Your task to perform on an android device: Search for "razer blackwidow" on amazon.com, select the first entry, add it to the cart, then select checkout. Image 0: 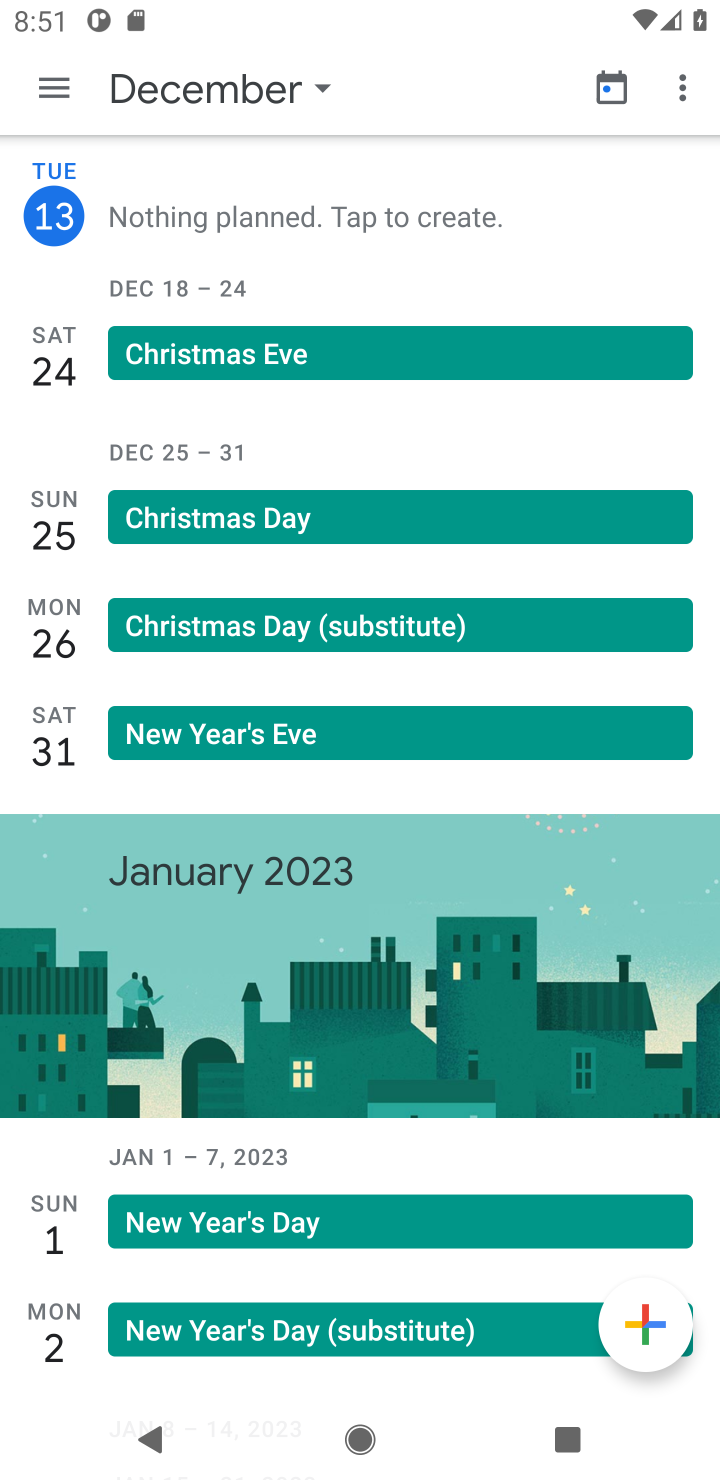
Step 0: press home button
Your task to perform on an android device: Search for "razer blackwidow" on amazon.com, select the first entry, add it to the cart, then select checkout. Image 1: 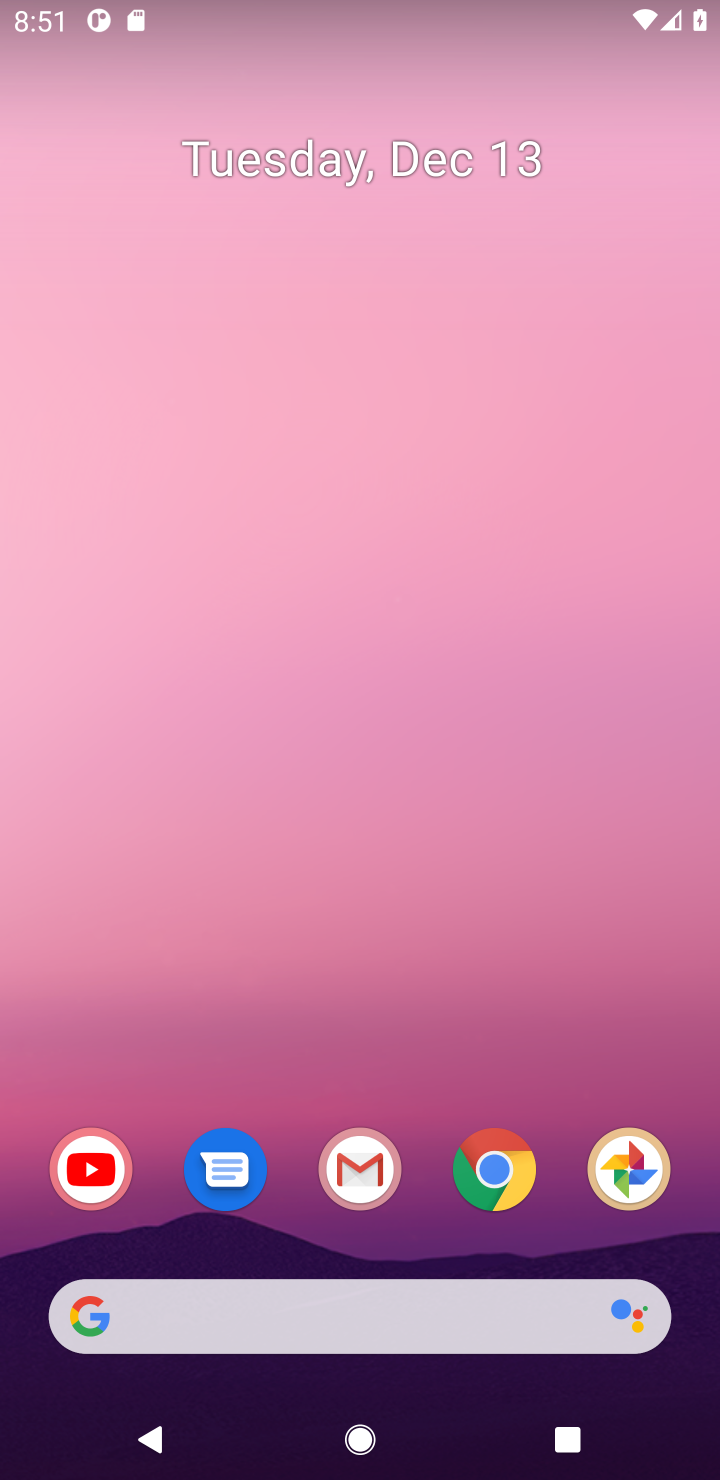
Step 1: click (505, 1184)
Your task to perform on an android device: Search for "razer blackwidow" on amazon.com, select the first entry, add it to the cart, then select checkout. Image 2: 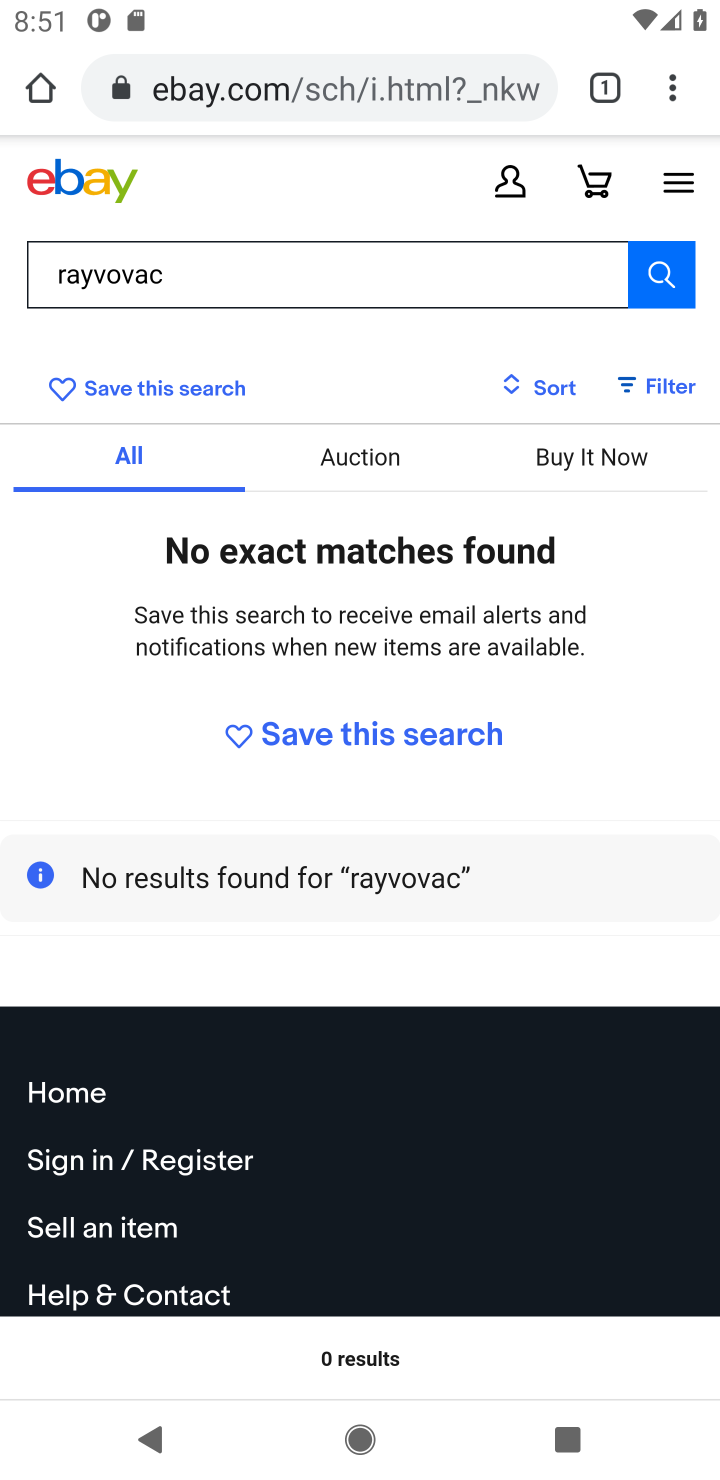
Step 2: click (339, 256)
Your task to perform on an android device: Search for "razer blackwidow" on amazon.com, select the first entry, add it to the cart, then select checkout. Image 3: 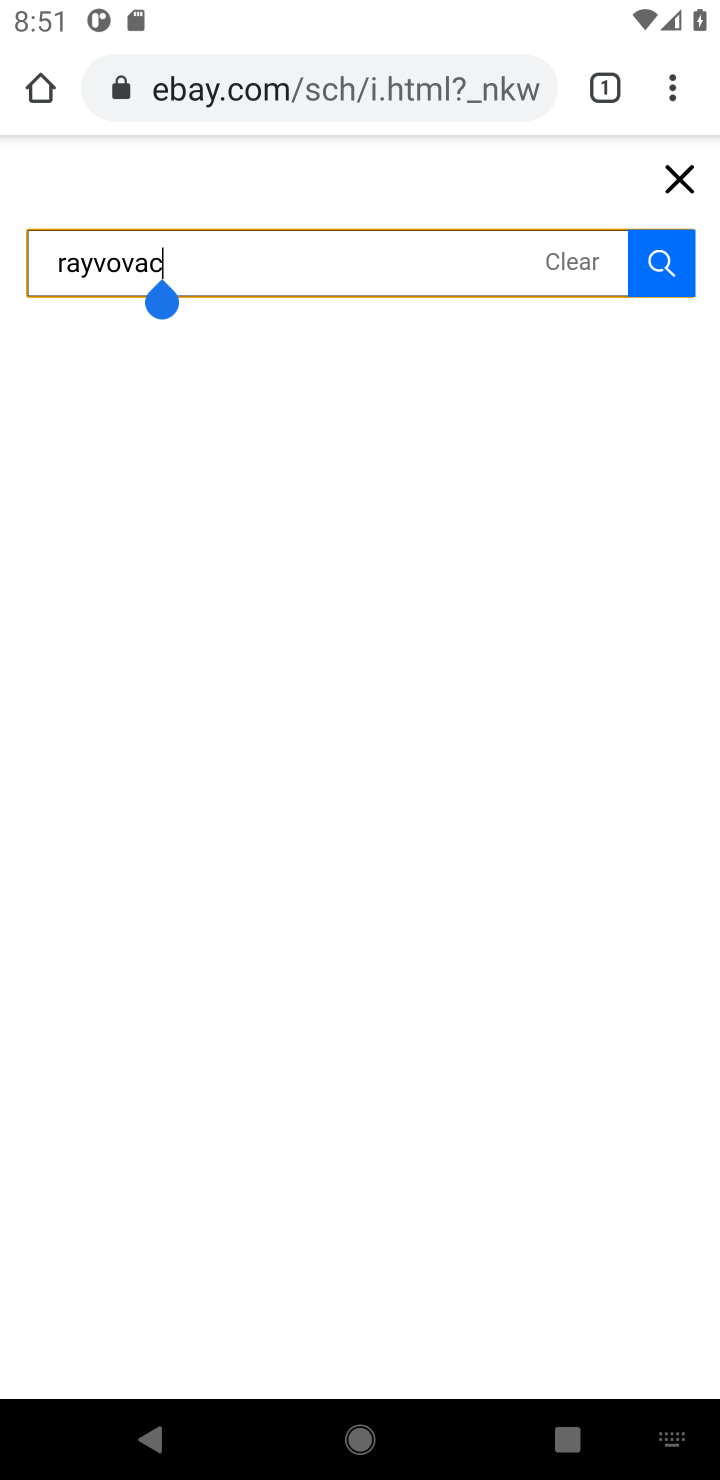
Step 3: click (698, 170)
Your task to perform on an android device: Search for "razer blackwidow" on amazon.com, select the first entry, add it to the cart, then select checkout. Image 4: 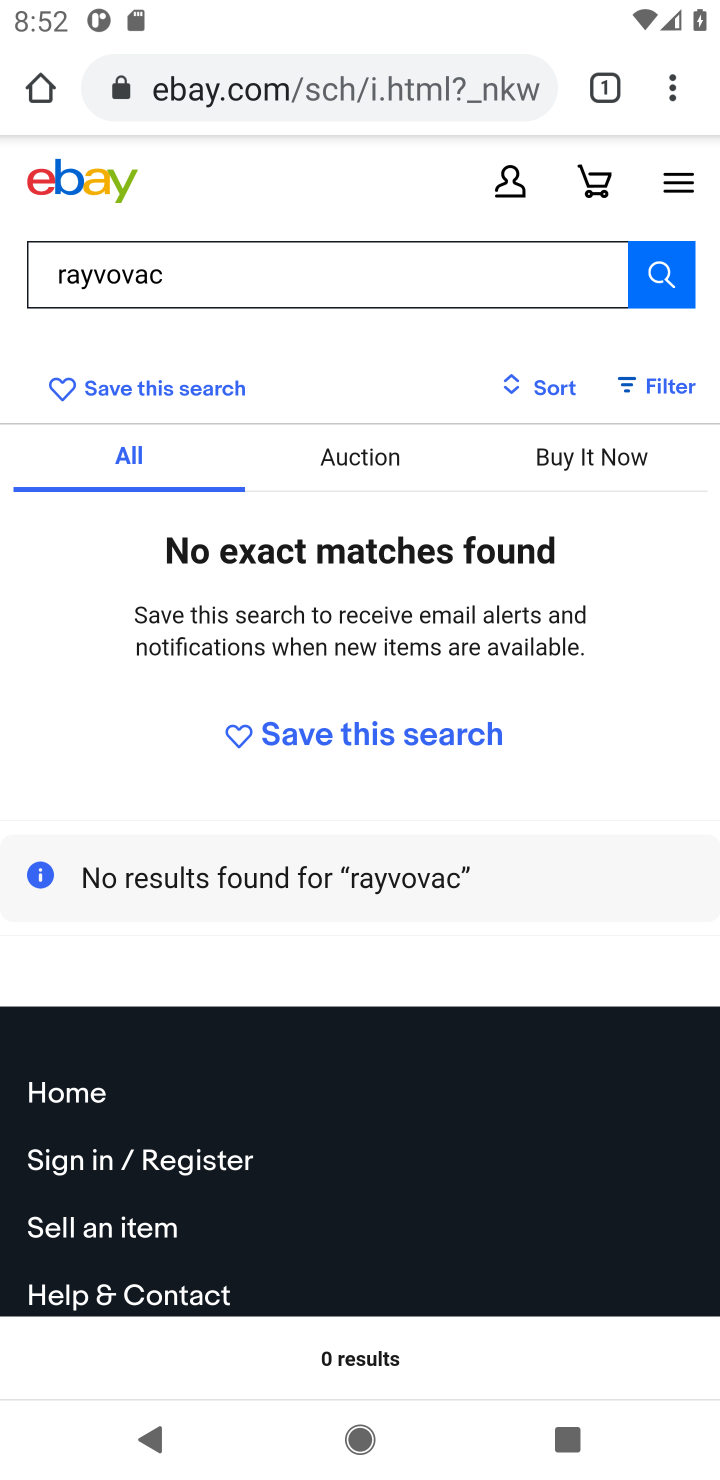
Step 4: click (405, 298)
Your task to perform on an android device: Search for "razer blackwidow" on amazon.com, select the first entry, add it to the cart, then select checkout. Image 5: 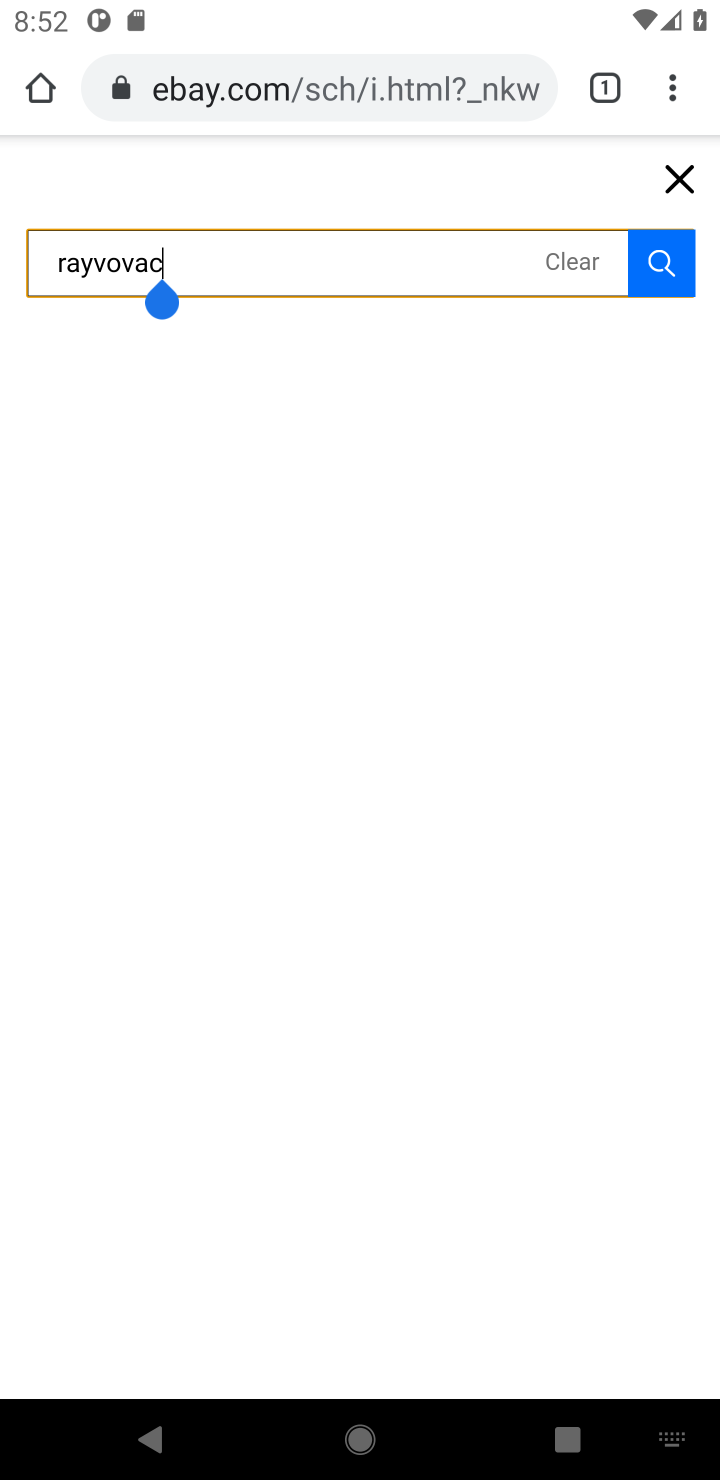
Step 5: click (575, 260)
Your task to perform on an android device: Search for "razer blackwidow" on amazon.com, select the first entry, add it to the cart, then select checkout. Image 6: 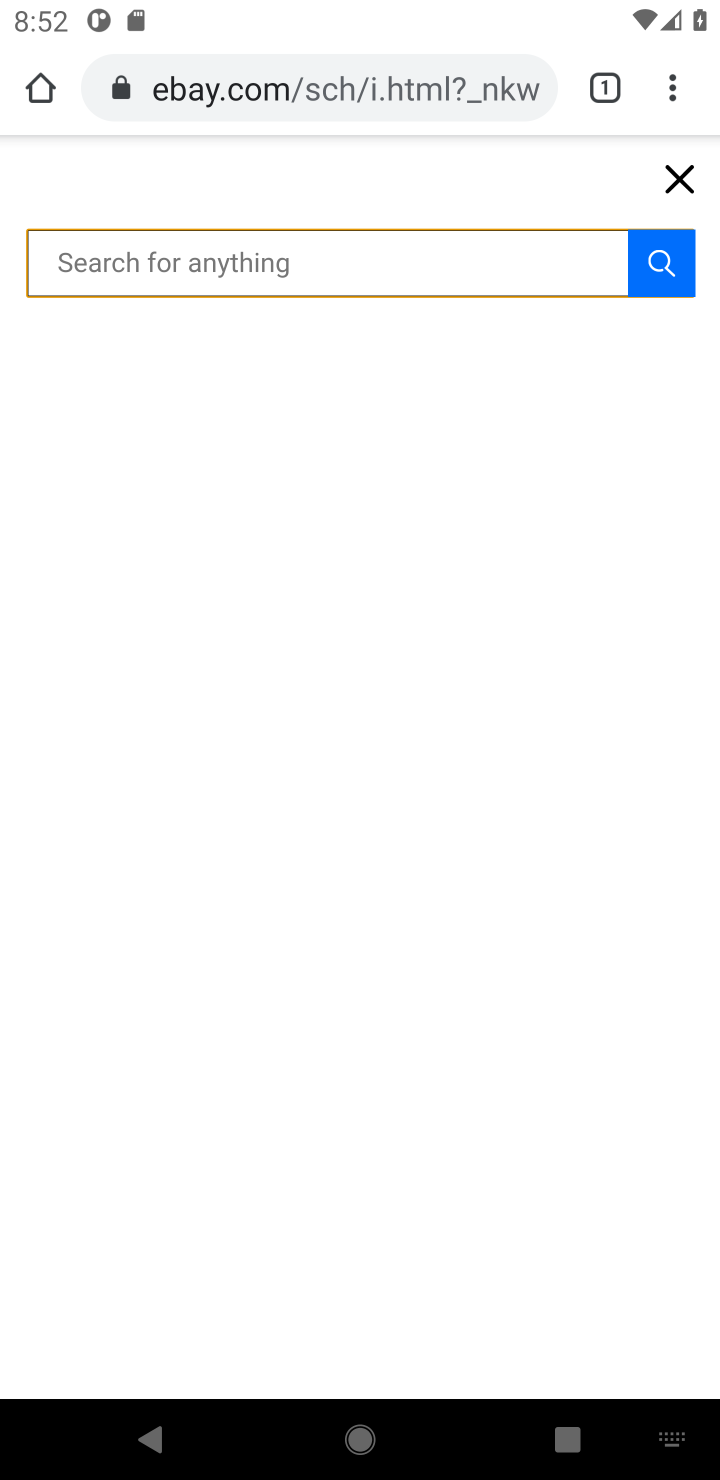
Step 6: type "razer blackwindow"
Your task to perform on an android device: Search for "razer blackwidow" on amazon.com, select the first entry, add it to the cart, then select checkout. Image 7: 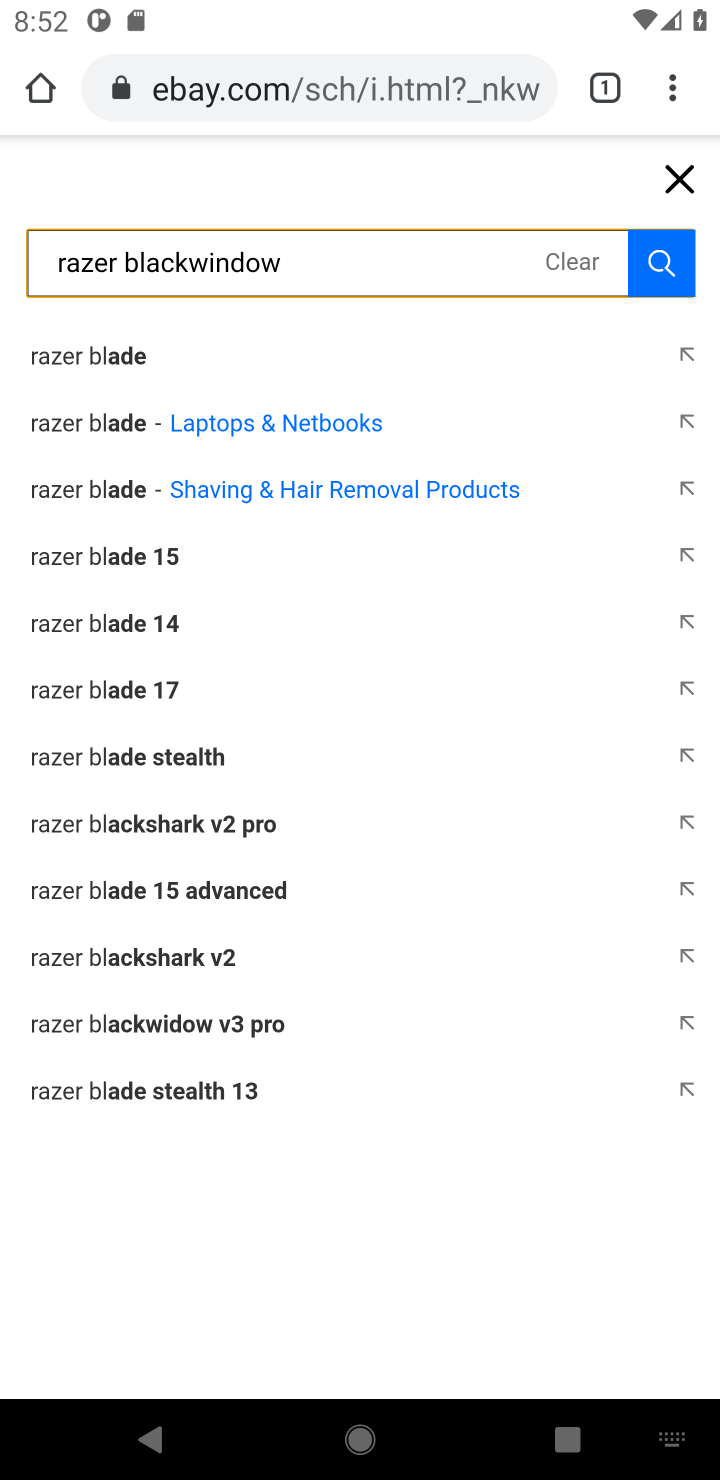
Step 7: click (668, 275)
Your task to perform on an android device: Search for "razer blackwidow" on amazon.com, select the first entry, add it to the cart, then select checkout. Image 8: 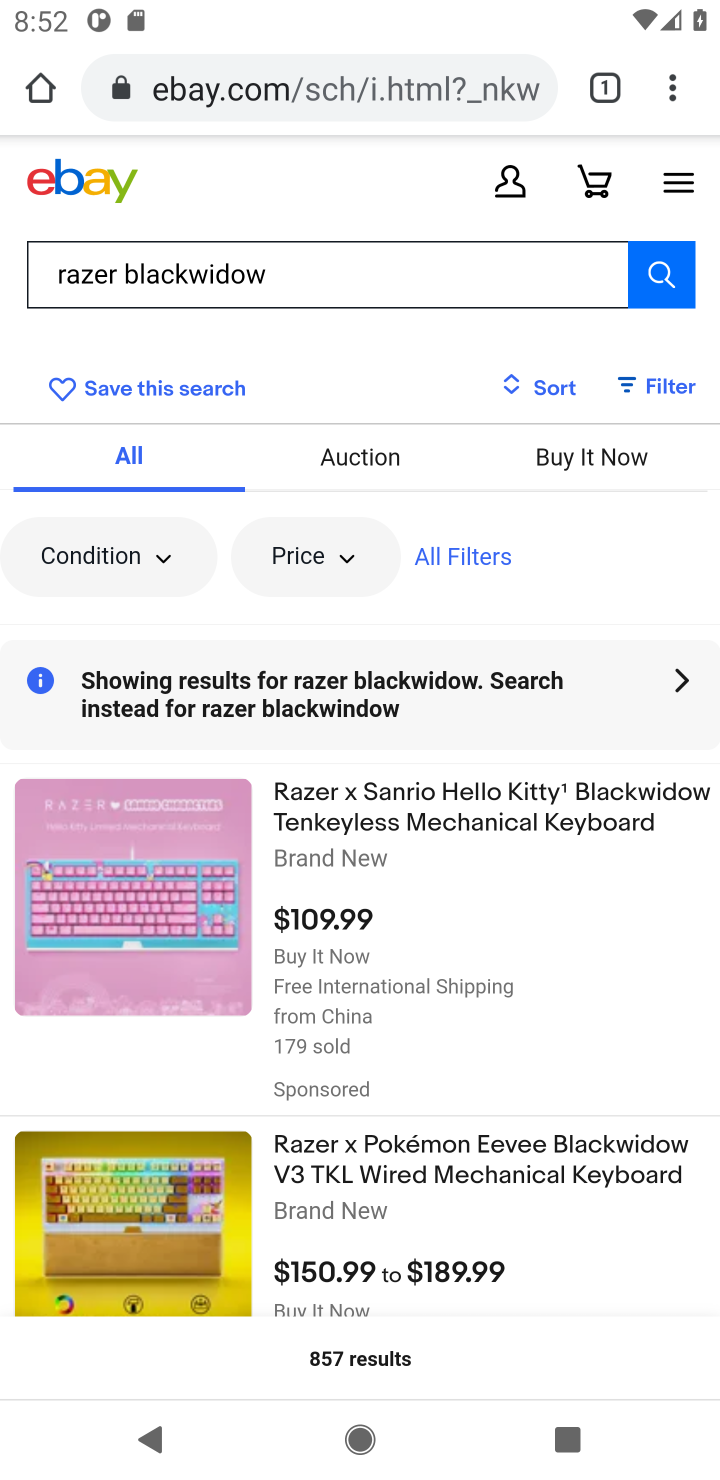
Step 8: click (391, 833)
Your task to perform on an android device: Search for "razer blackwidow" on amazon.com, select the first entry, add it to the cart, then select checkout. Image 9: 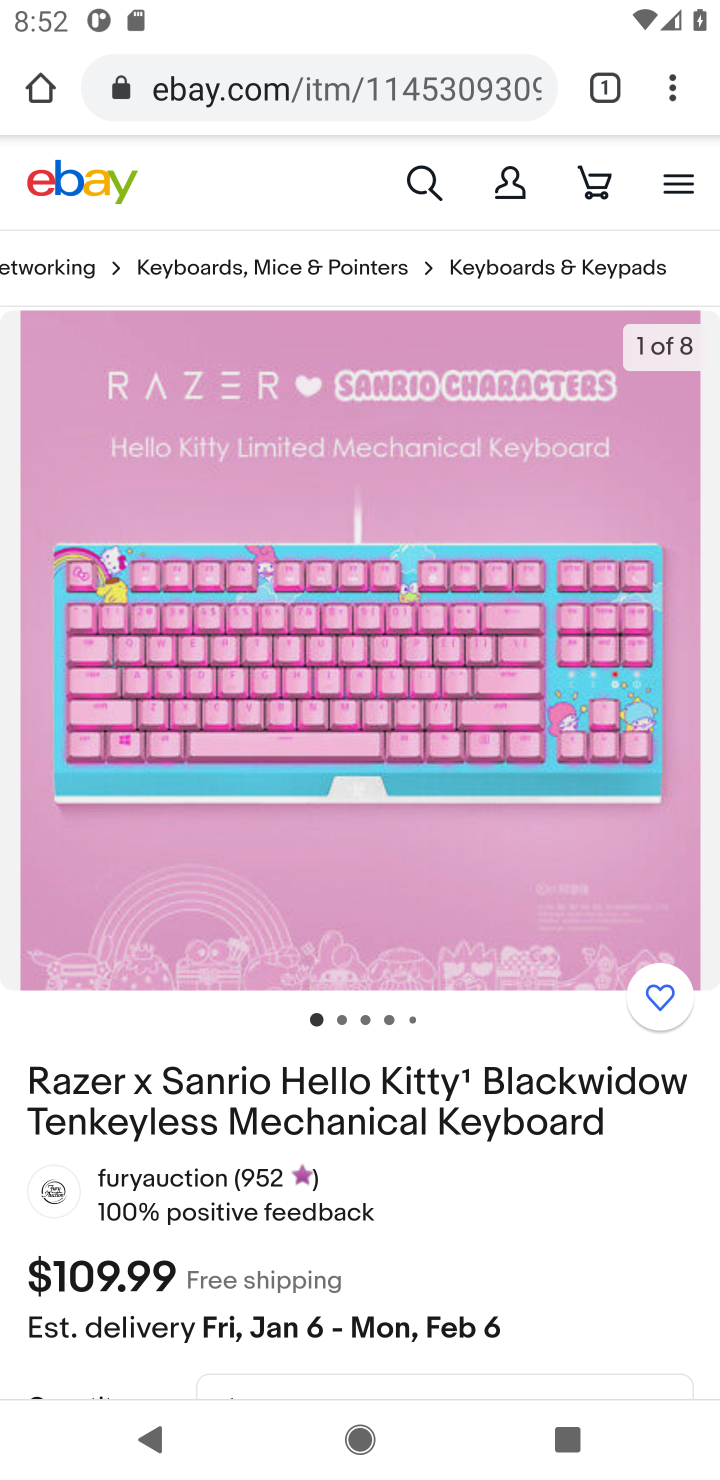
Step 9: drag from (465, 1288) to (432, 496)
Your task to perform on an android device: Search for "razer blackwidow" on amazon.com, select the first entry, add it to the cart, then select checkout. Image 10: 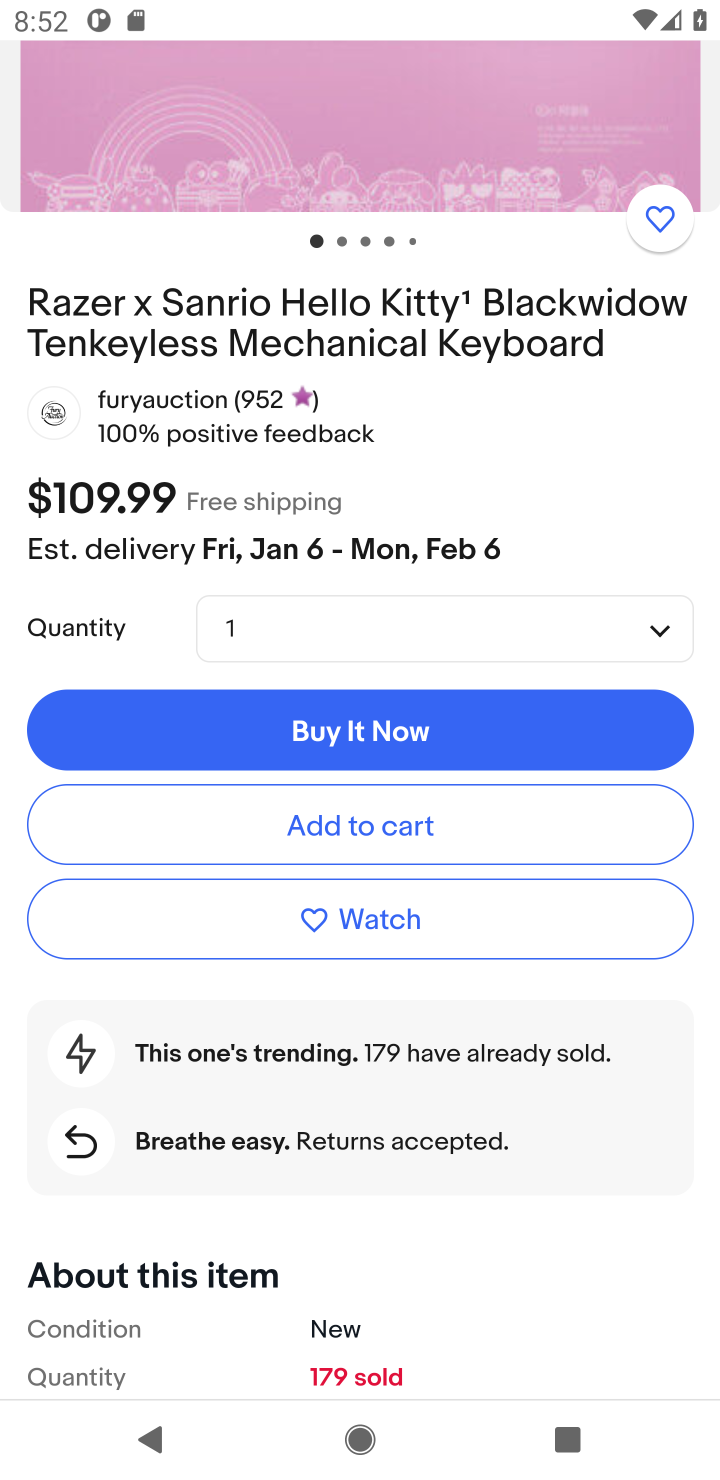
Step 10: click (398, 843)
Your task to perform on an android device: Search for "razer blackwidow" on amazon.com, select the first entry, add it to the cart, then select checkout. Image 11: 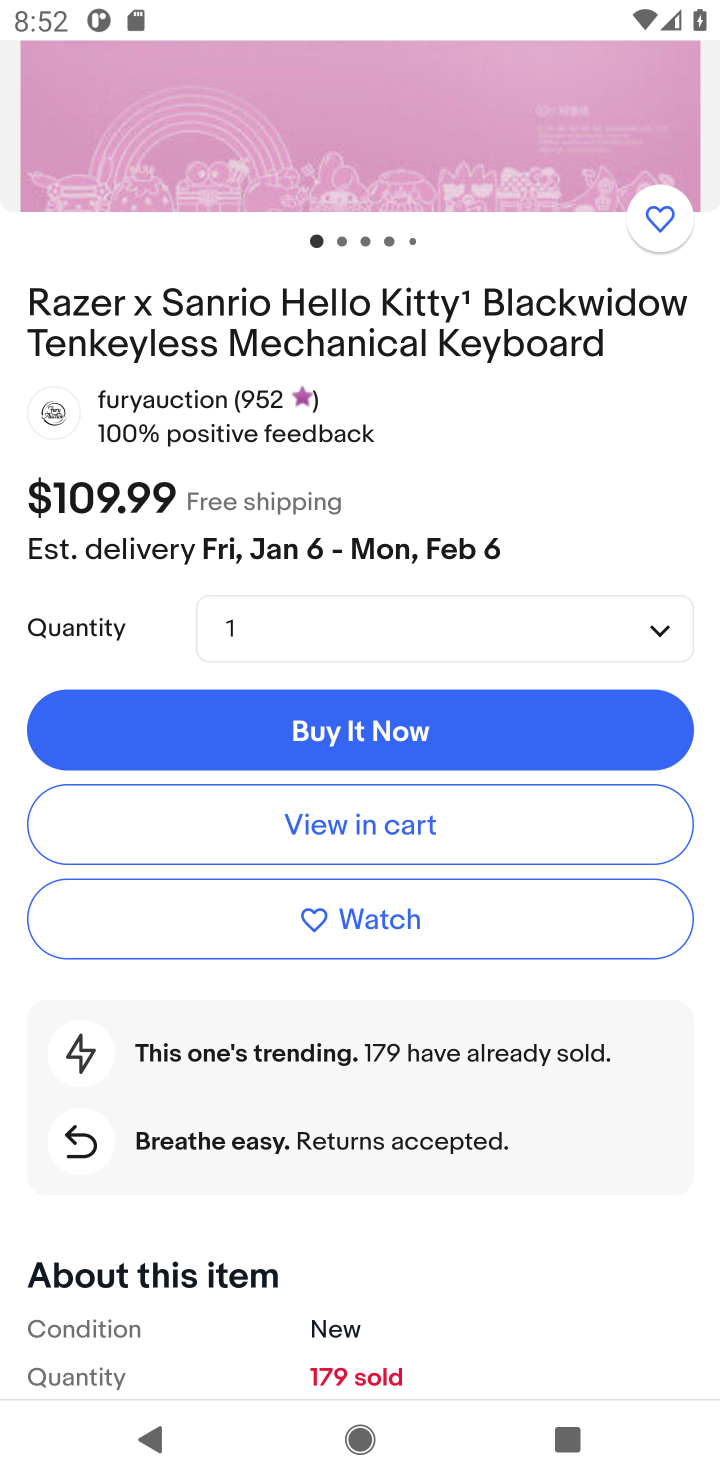
Step 11: task complete